Your task to perform on an android device: change the clock display to digital Image 0: 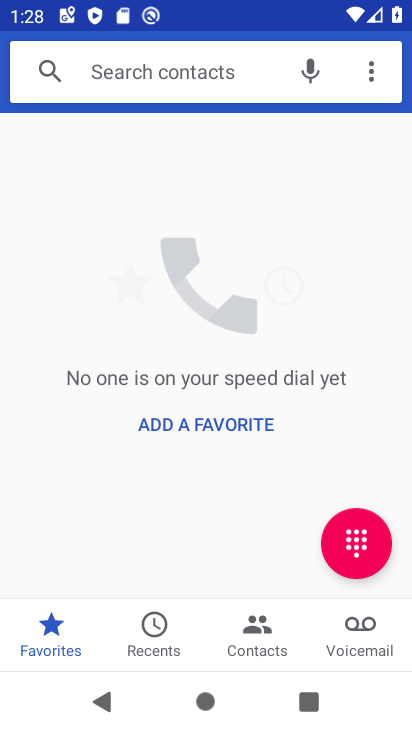
Step 0: press home button
Your task to perform on an android device: change the clock display to digital Image 1: 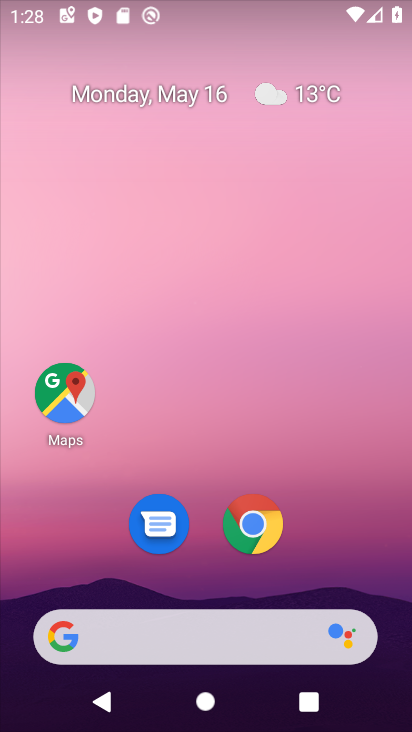
Step 1: drag from (338, 510) to (304, 63)
Your task to perform on an android device: change the clock display to digital Image 2: 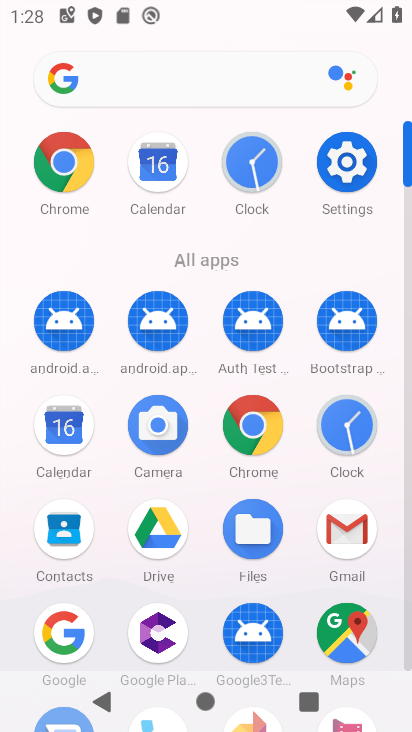
Step 2: click (341, 411)
Your task to perform on an android device: change the clock display to digital Image 3: 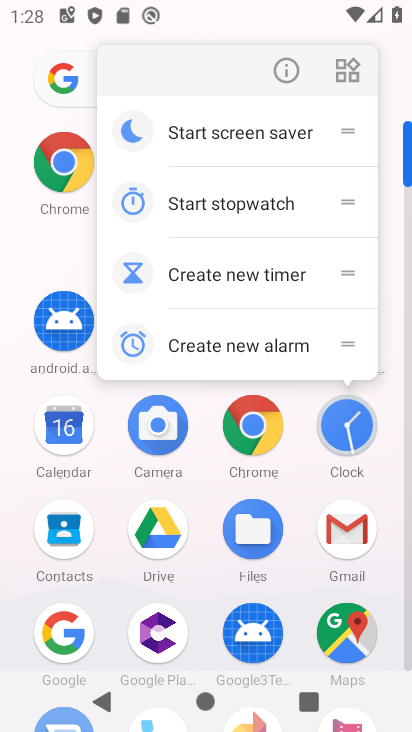
Step 3: click (347, 423)
Your task to perform on an android device: change the clock display to digital Image 4: 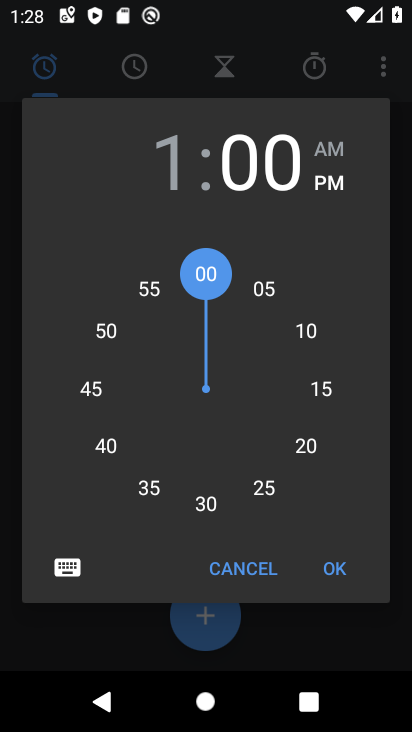
Step 4: click (126, 61)
Your task to perform on an android device: change the clock display to digital Image 5: 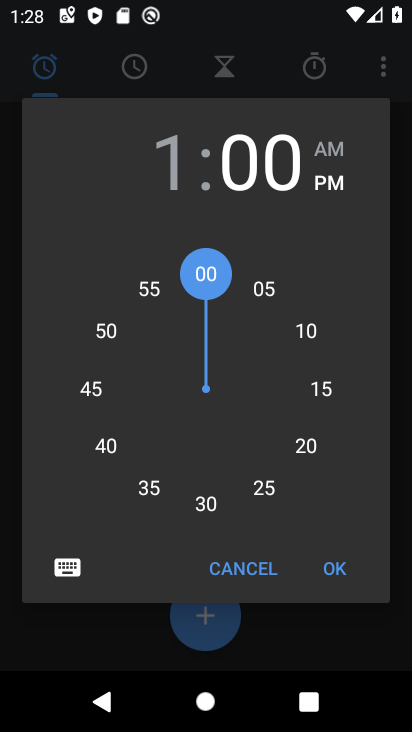
Step 5: click (329, 567)
Your task to perform on an android device: change the clock display to digital Image 6: 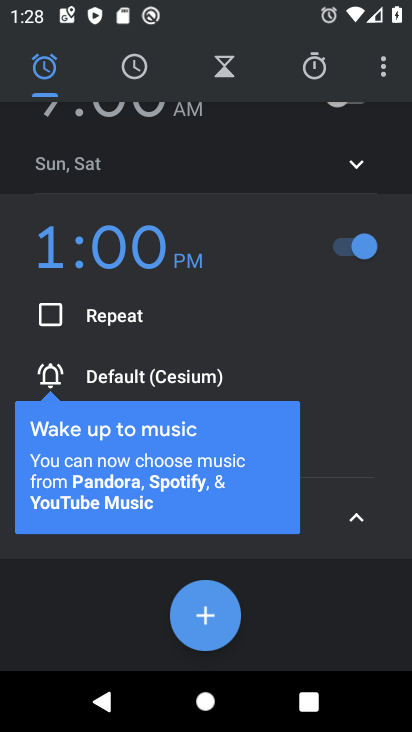
Step 6: click (144, 71)
Your task to perform on an android device: change the clock display to digital Image 7: 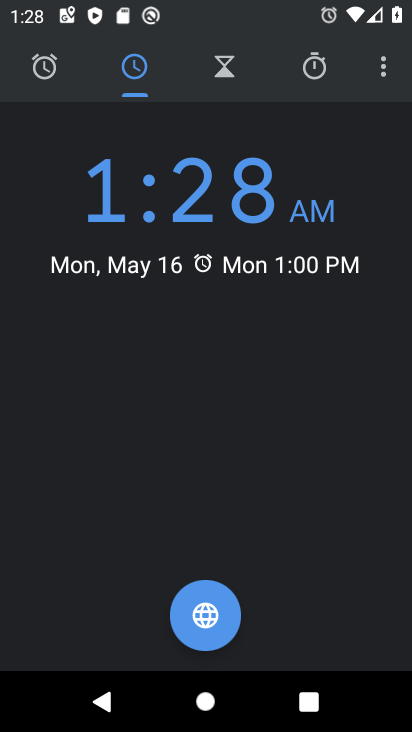
Step 7: task complete